Your task to perform on an android device: add a contact Image 0: 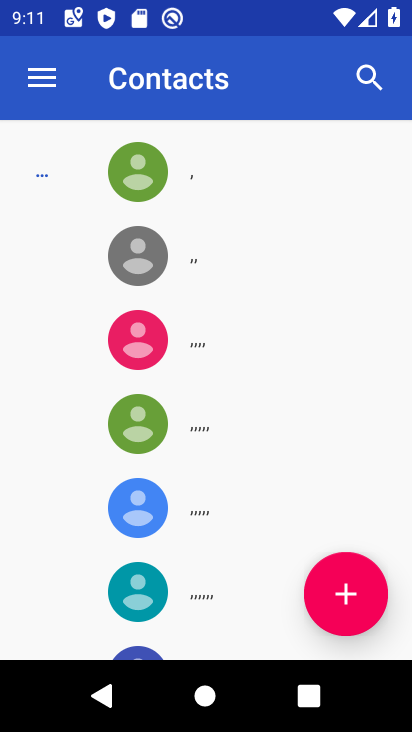
Step 0: press home button
Your task to perform on an android device: add a contact Image 1: 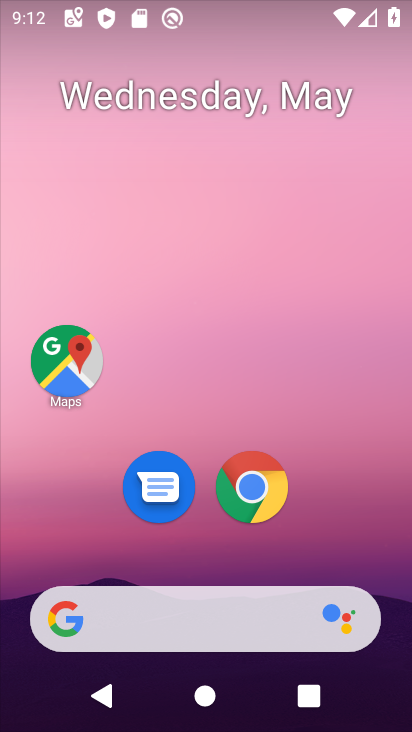
Step 1: drag from (317, 539) to (270, 228)
Your task to perform on an android device: add a contact Image 2: 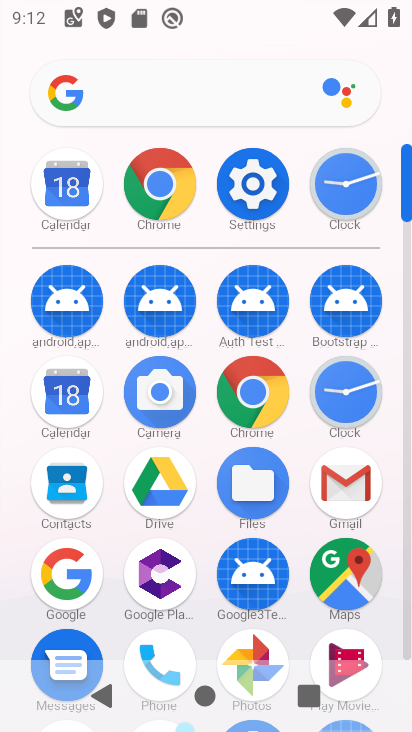
Step 2: click (66, 481)
Your task to perform on an android device: add a contact Image 3: 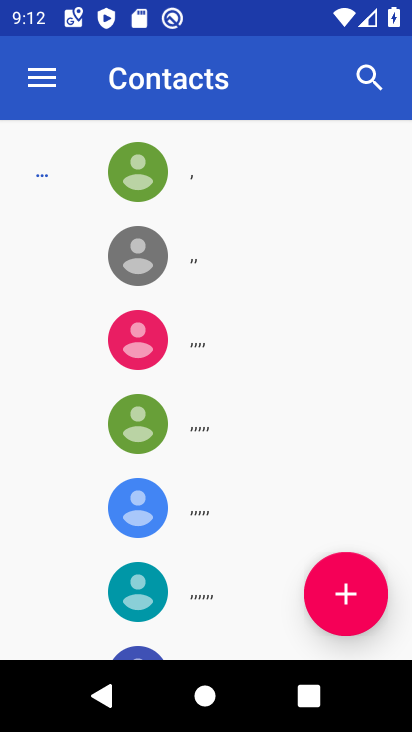
Step 3: click (347, 595)
Your task to perform on an android device: add a contact Image 4: 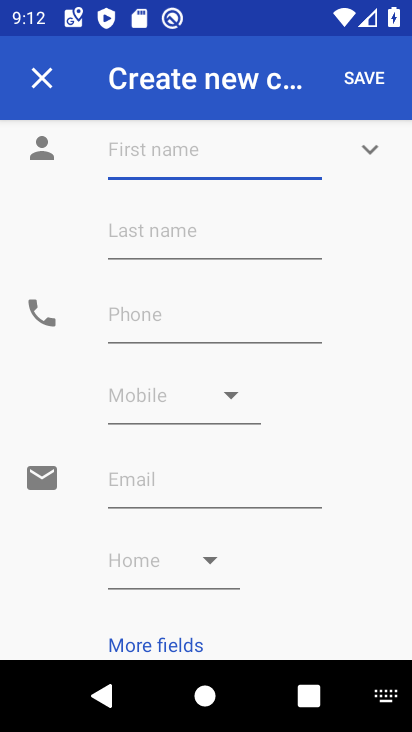
Step 4: type "xcv"
Your task to perform on an android device: add a contact Image 5: 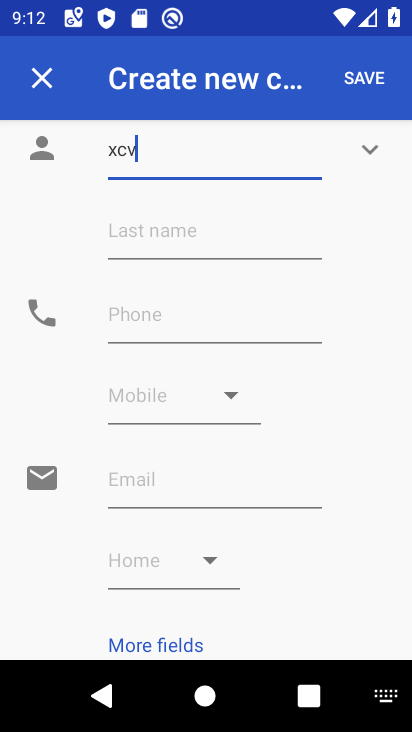
Step 5: click (200, 324)
Your task to perform on an android device: add a contact Image 6: 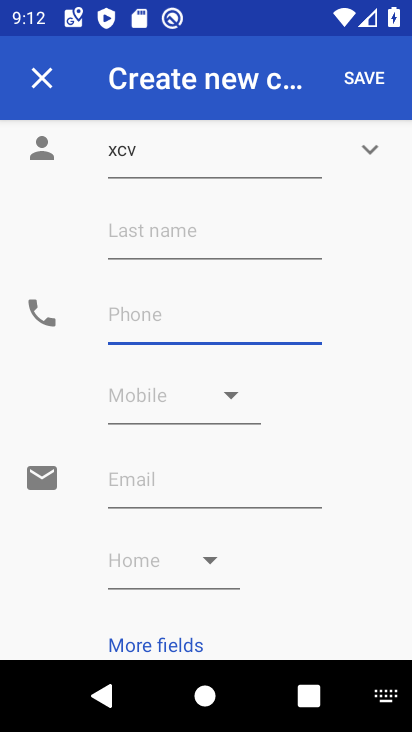
Step 6: type "567"
Your task to perform on an android device: add a contact Image 7: 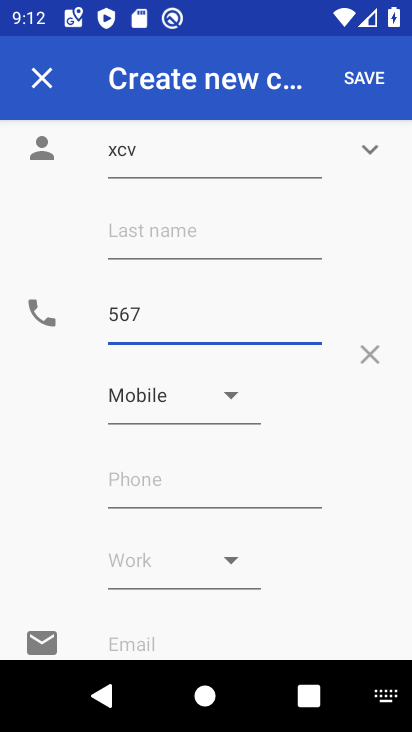
Step 7: click (372, 73)
Your task to perform on an android device: add a contact Image 8: 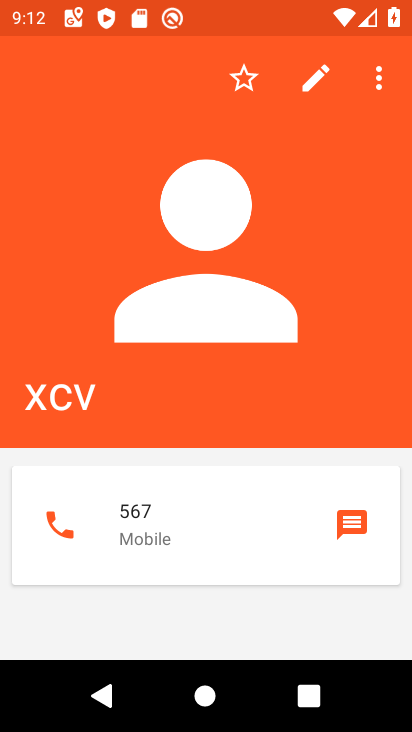
Step 8: task complete